Your task to perform on an android device: empty trash in the gmail app Image 0: 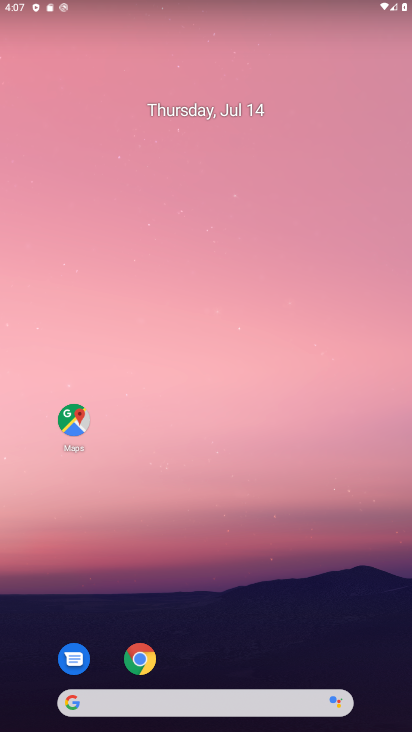
Step 0: drag from (265, 567) to (275, 189)
Your task to perform on an android device: empty trash in the gmail app Image 1: 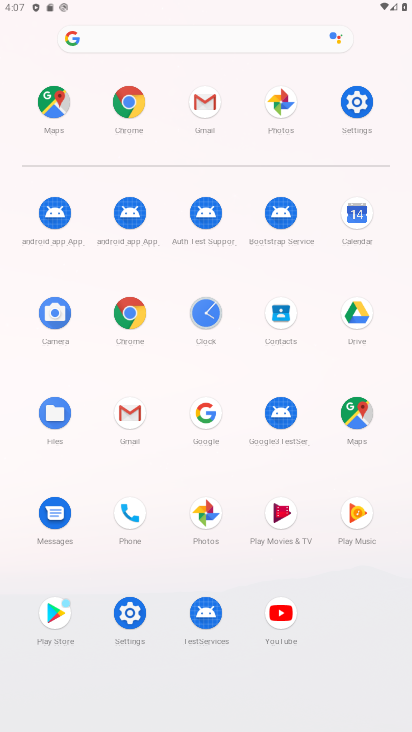
Step 1: click (134, 411)
Your task to perform on an android device: empty trash in the gmail app Image 2: 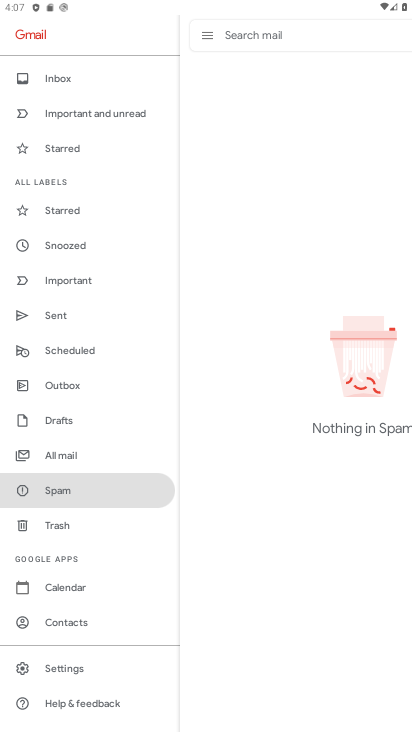
Step 2: click (130, 411)
Your task to perform on an android device: empty trash in the gmail app Image 3: 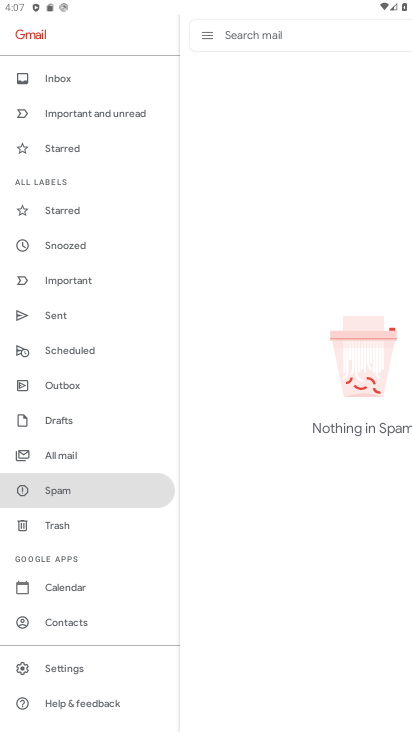
Step 3: click (136, 412)
Your task to perform on an android device: empty trash in the gmail app Image 4: 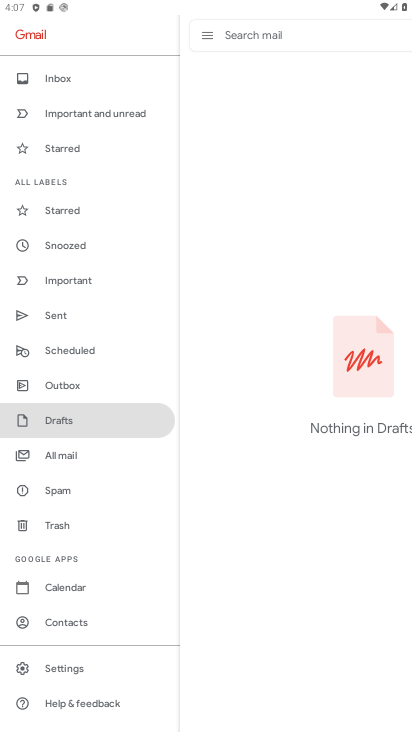
Step 4: click (51, 495)
Your task to perform on an android device: empty trash in the gmail app Image 5: 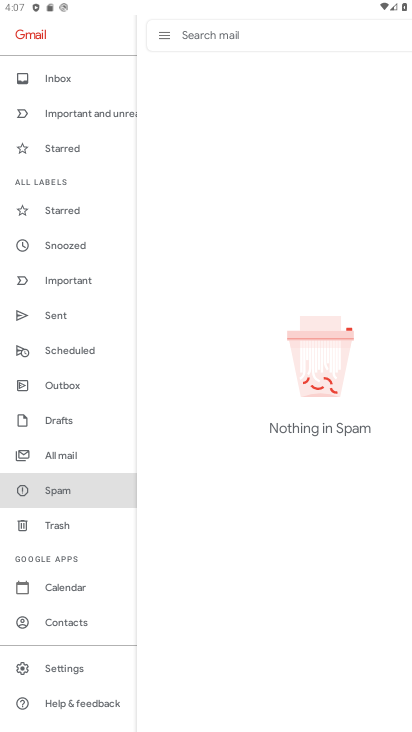
Step 5: click (56, 489)
Your task to perform on an android device: empty trash in the gmail app Image 6: 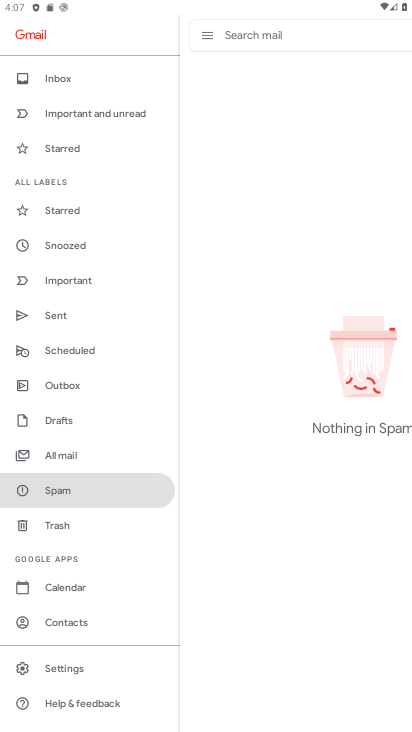
Step 6: click (56, 489)
Your task to perform on an android device: empty trash in the gmail app Image 7: 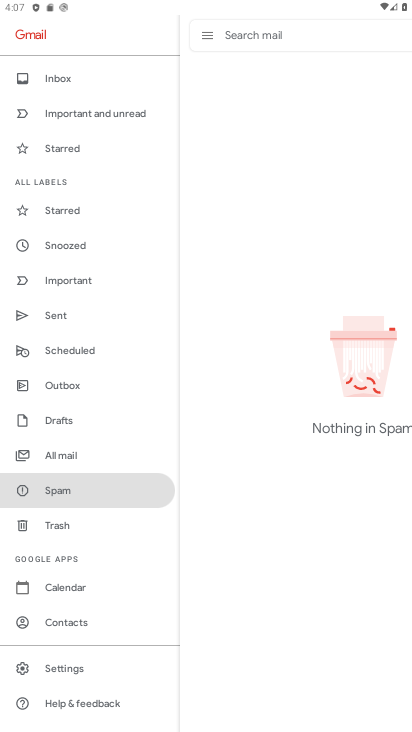
Step 7: task complete